Your task to perform on an android device: Go to battery settings Image 0: 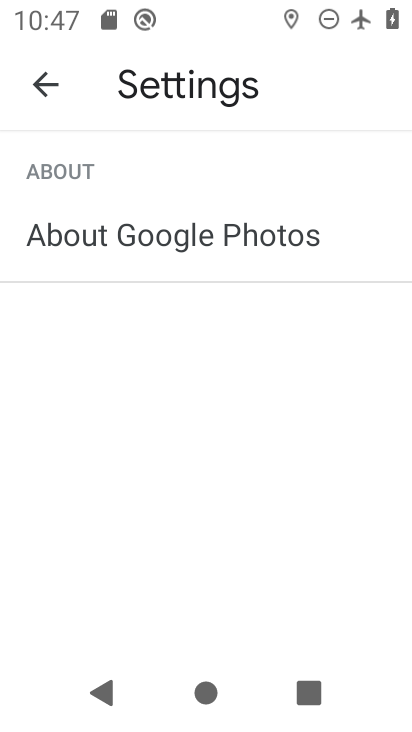
Step 0: press home button
Your task to perform on an android device: Go to battery settings Image 1: 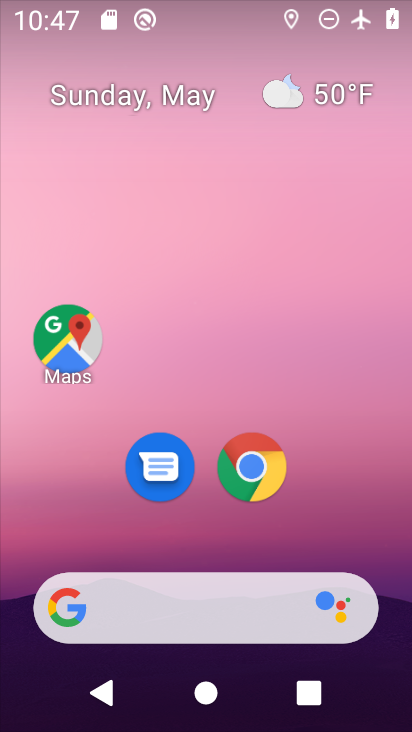
Step 1: drag from (183, 536) to (175, 147)
Your task to perform on an android device: Go to battery settings Image 2: 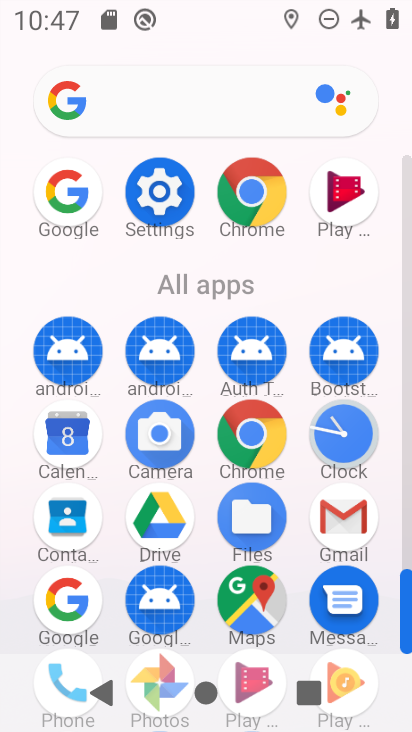
Step 2: click (173, 157)
Your task to perform on an android device: Go to battery settings Image 3: 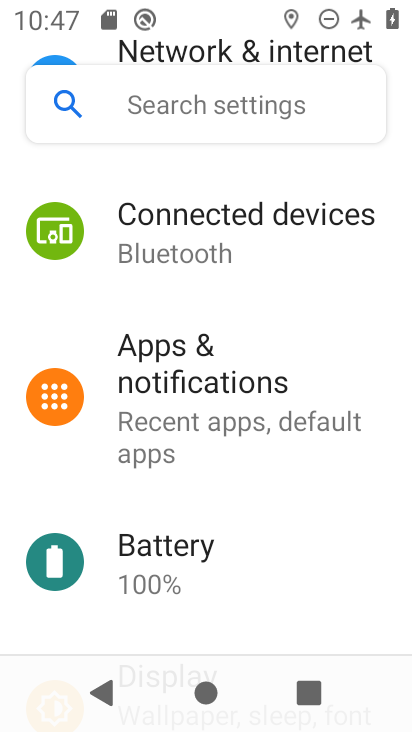
Step 3: click (171, 578)
Your task to perform on an android device: Go to battery settings Image 4: 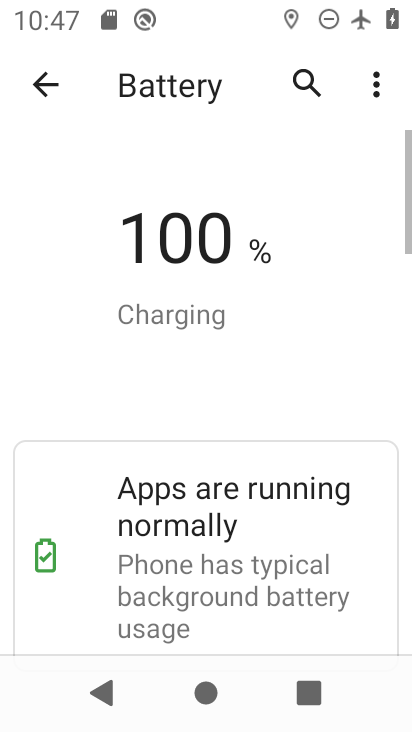
Step 4: task complete